Your task to perform on an android device: Do I have any events today? Image 0: 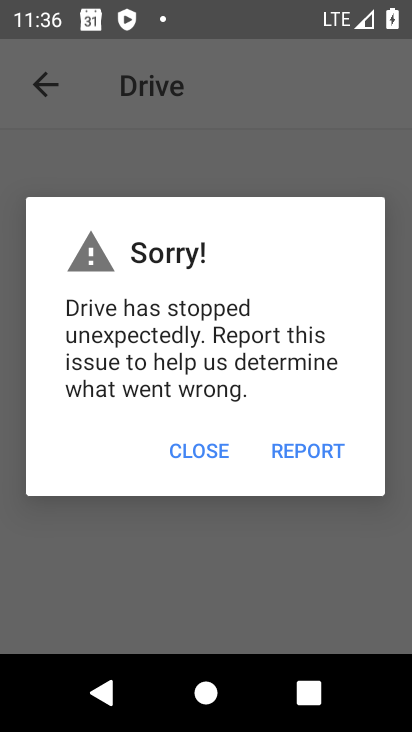
Step 0: click (198, 463)
Your task to perform on an android device: Do I have any events today? Image 1: 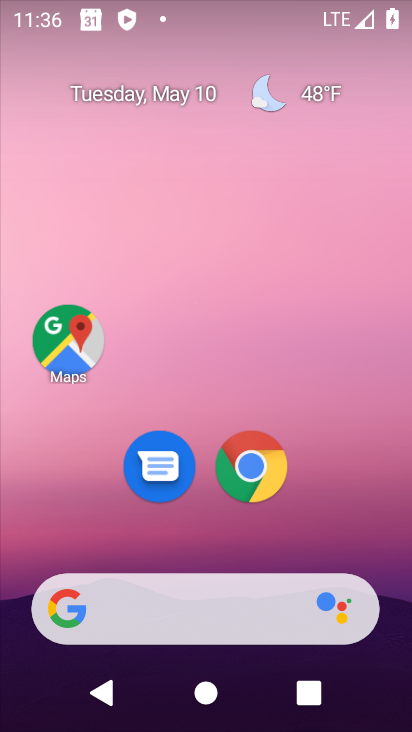
Step 1: drag from (183, 561) to (235, 99)
Your task to perform on an android device: Do I have any events today? Image 2: 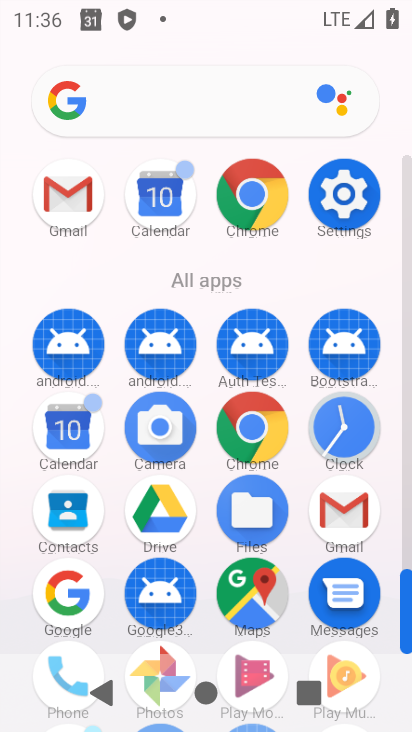
Step 2: click (163, 201)
Your task to perform on an android device: Do I have any events today? Image 3: 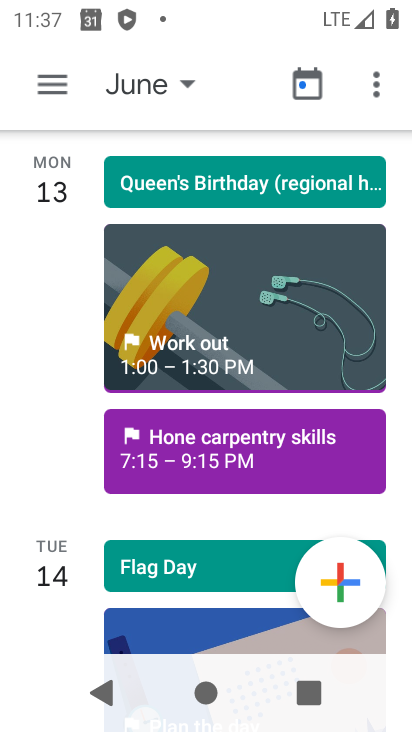
Step 3: click (147, 88)
Your task to perform on an android device: Do I have any events today? Image 4: 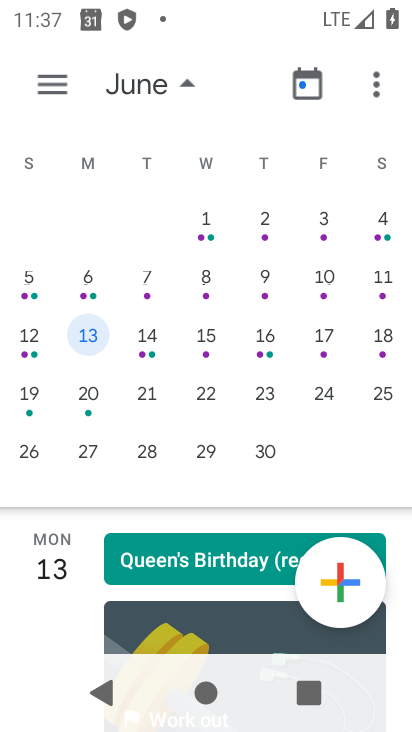
Step 4: drag from (51, 362) to (345, 339)
Your task to perform on an android device: Do I have any events today? Image 5: 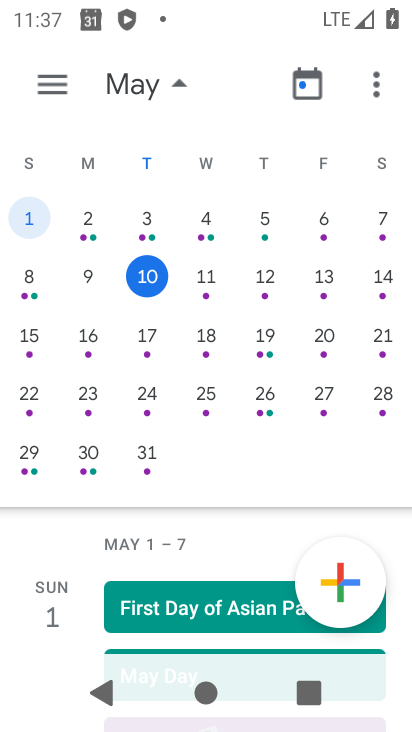
Step 5: click (150, 274)
Your task to perform on an android device: Do I have any events today? Image 6: 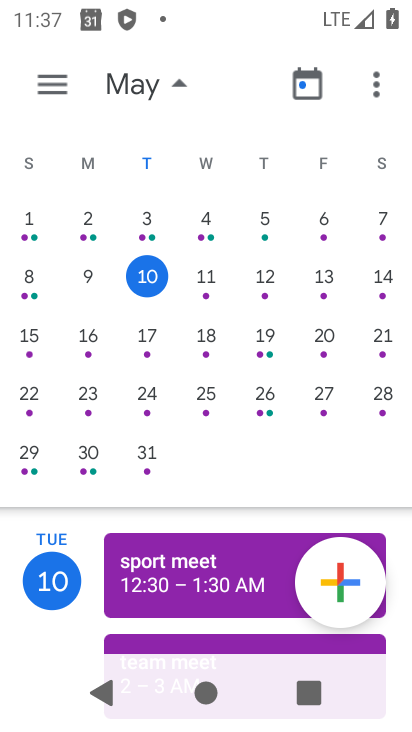
Step 6: click (228, 271)
Your task to perform on an android device: Do I have any events today? Image 7: 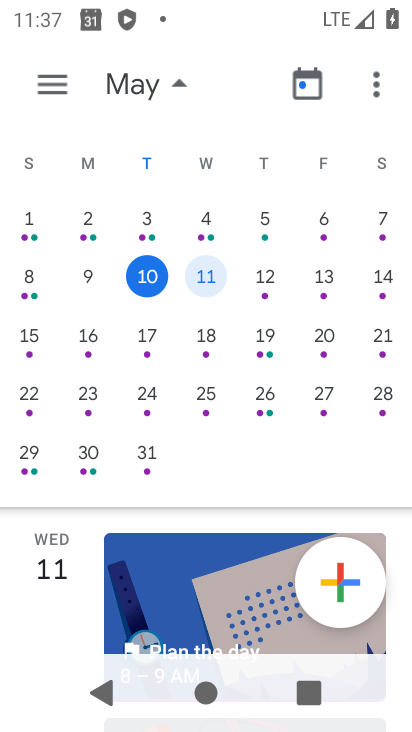
Step 7: drag from (118, 585) to (248, 85)
Your task to perform on an android device: Do I have any events today? Image 8: 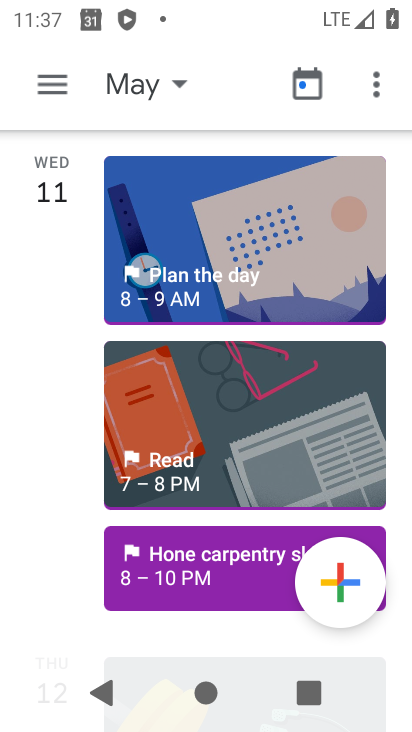
Step 8: click (165, 567)
Your task to perform on an android device: Do I have any events today? Image 9: 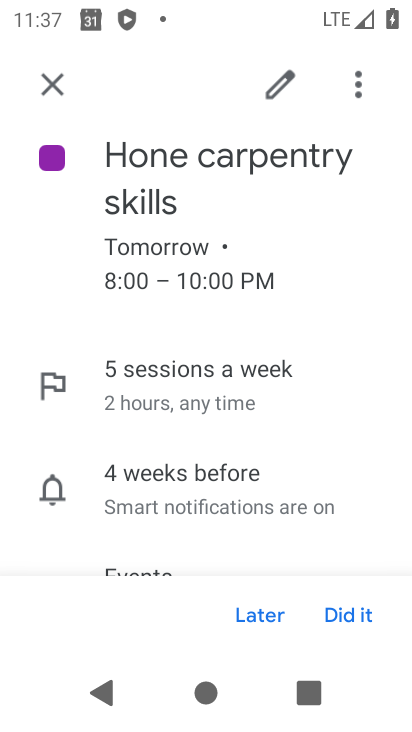
Step 9: task complete